Your task to perform on an android device: toggle airplane mode Image 0: 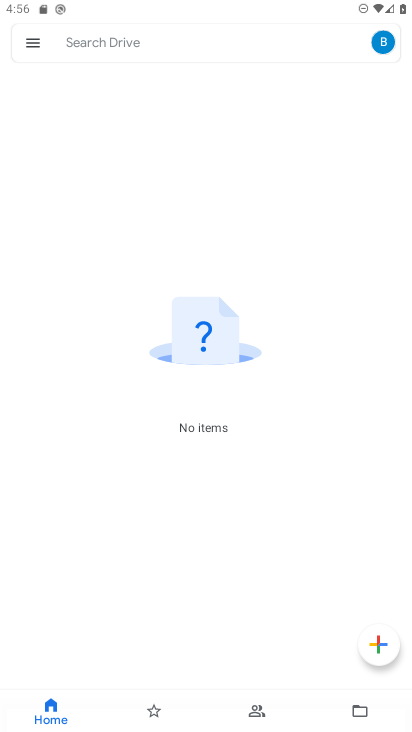
Step 0: press home button
Your task to perform on an android device: toggle airplane mode Image 1: 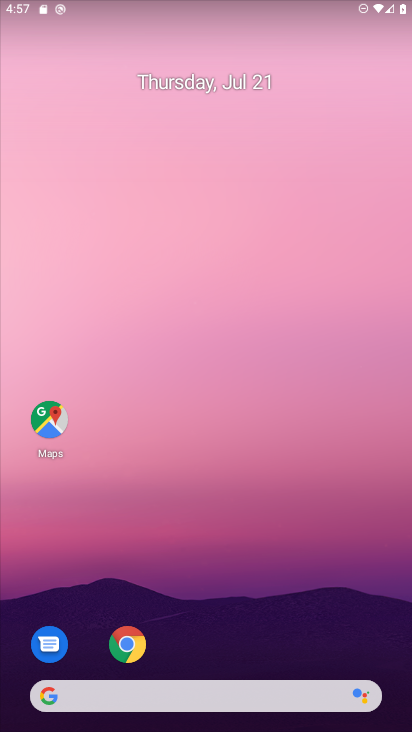
Step 1: drag from (243, 173) to (258, 132)
Your task to perform on an android device: toggle airplane mode Image 2: 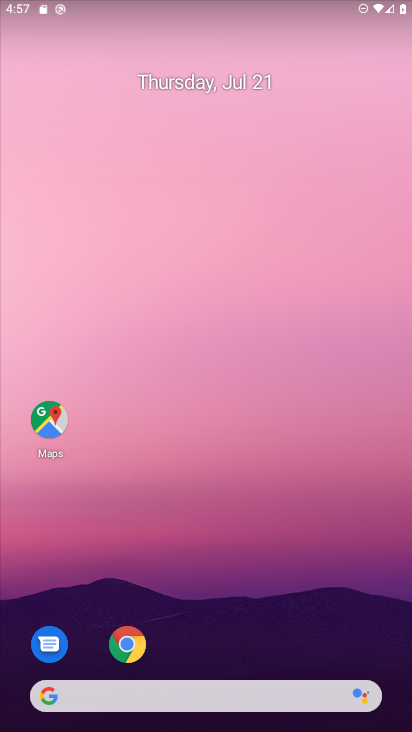
Step 2: drag from (194, 571) to (218, 18)
Your task to perform on an android device: toggle airplane mode Image 3: 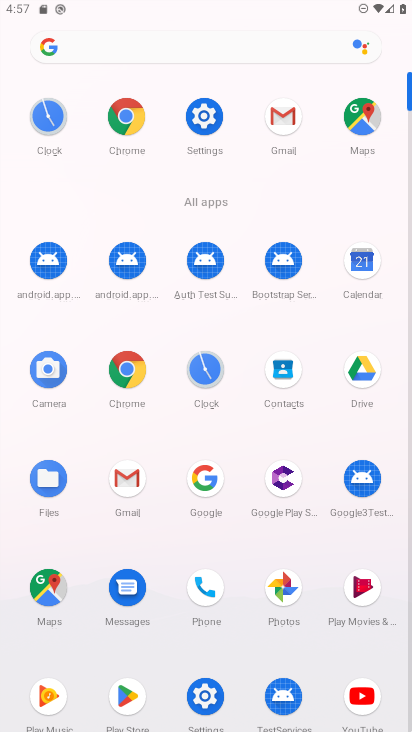
Step 3: click (218, 119)
Your task to perform on an android device: toggle airplane mode Image 4: 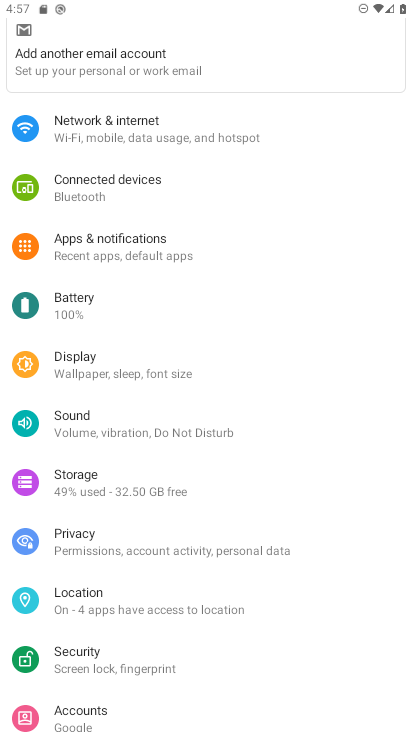
Step 4: click (212, 122)
Your task to perform on an android device: toggle airplane mode Image 5: 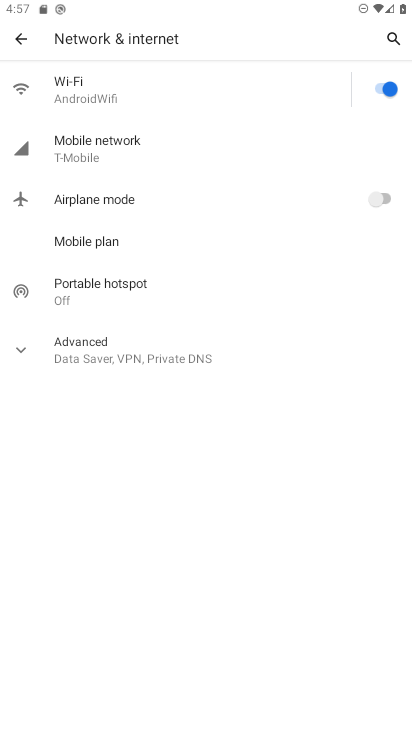
Step 5: click (391, 212)
Your task to perform on an android device: toggle airplane mode Image 6: 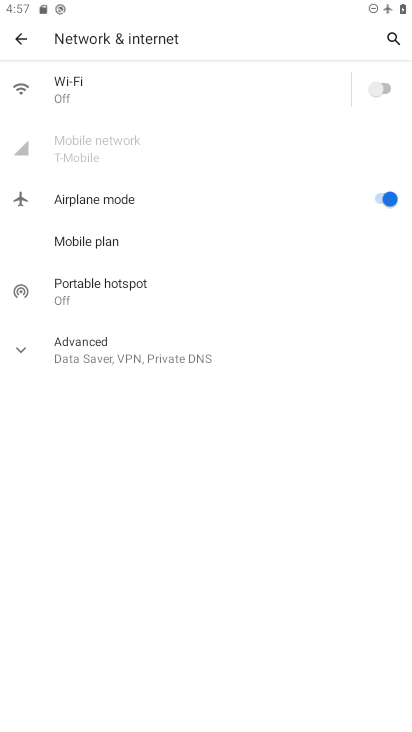
Step 6: task complete